Your task to perform on an android device: Go to CNN.com Image 0: 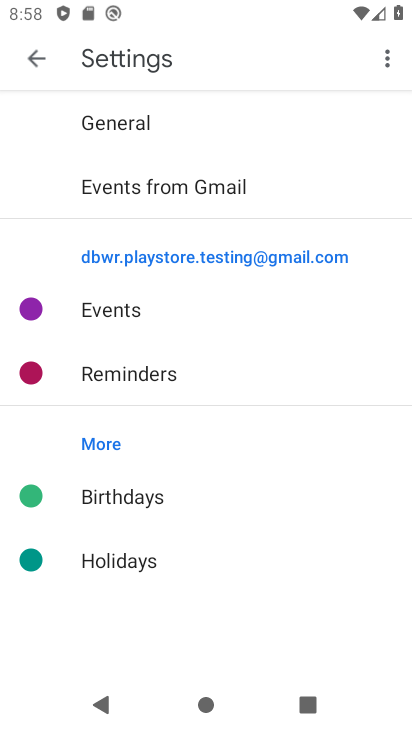
Step 0: press home button
Your task to perform on an android device: Go to CNN.com Image 1: 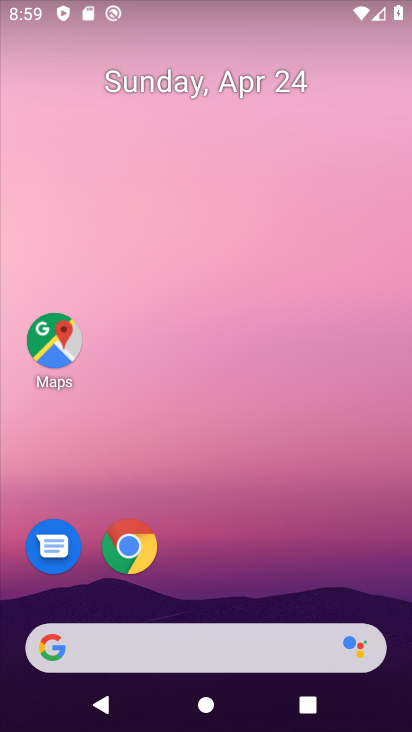
Step 1: drag from (223, 580) to (244, 220)
Your task to perform on an android device: Go to CNN.com Image 2: 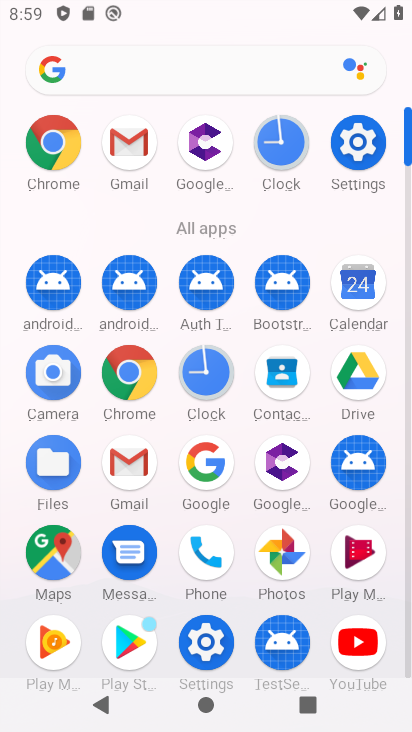
Step 2: click (112, 371)
Your task to perform on an android device: Go to CNN.com Image 3: 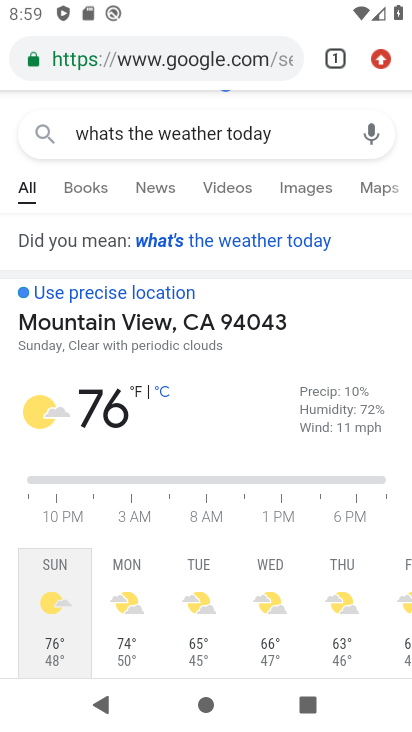
Step 3: click (380, 55)
Your task to perform on an android device: Go to CNN.com Image 4: 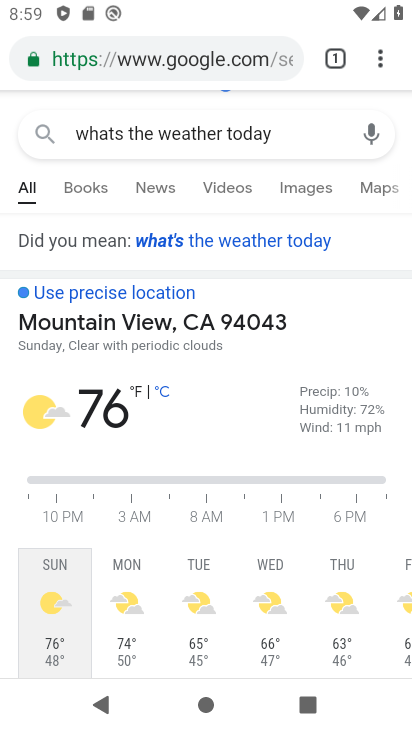
Step 4: click (365, 53)
Your task to perform on an android device: Go to CNN.com Image 5: 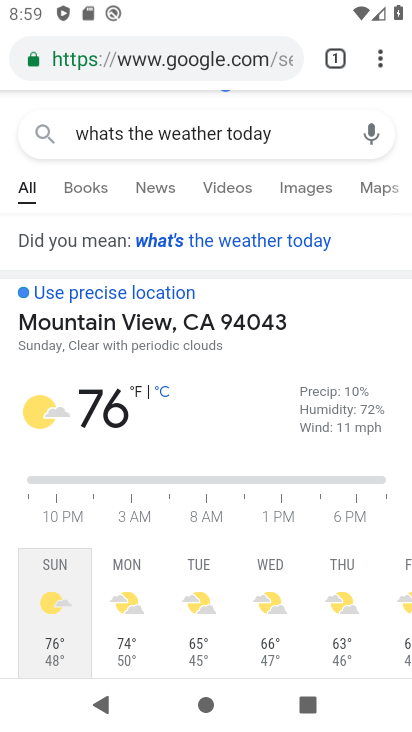
Step 5: click (375, 53)
Your task to perform on an android device: Go to CNN.com Image 6: 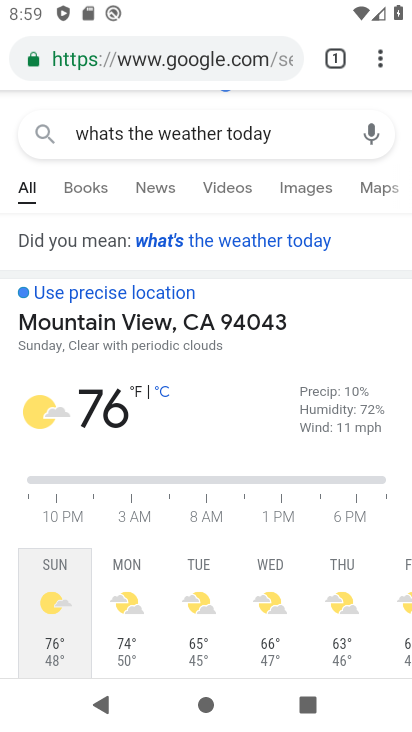
Step 6: click (368, 57)
Your task to perform on an android device: Go to CNN.com Image 7: 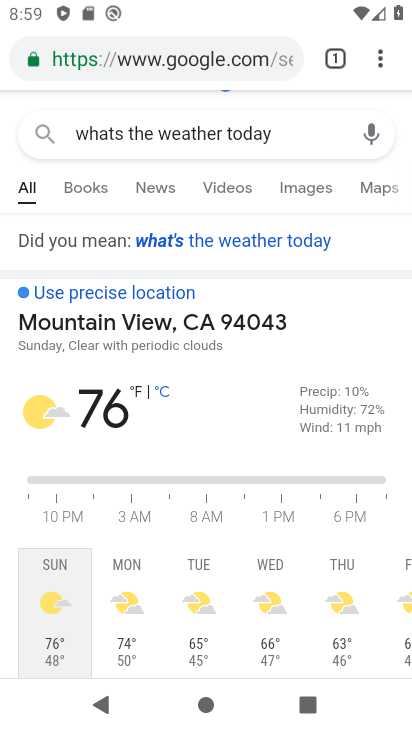
Step 7: click (368, 57)
Your task to perform on an android device: Go to CNN.com Image 8: 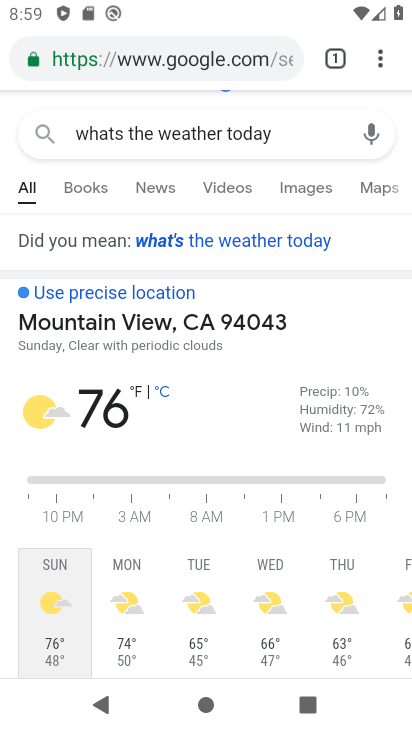
Step 8: click (363, 57)
Your task to perform on an android device: Go to CNN.com Image 9: 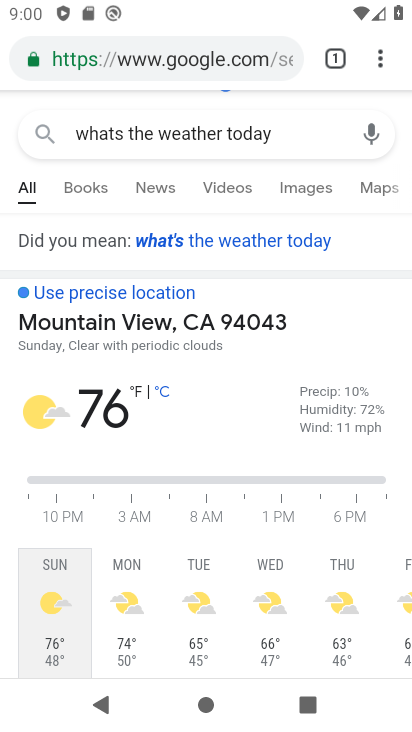
Step 9: click (383, 70)
Your task to perform on an android device: Go to CNN.com Image 10: 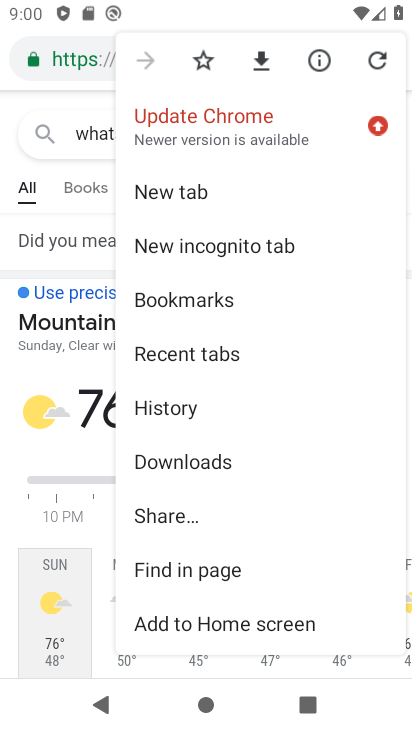
Step 10: click (207, 193)
Your task to perform on an android device: Go to CNN.com Image 11: 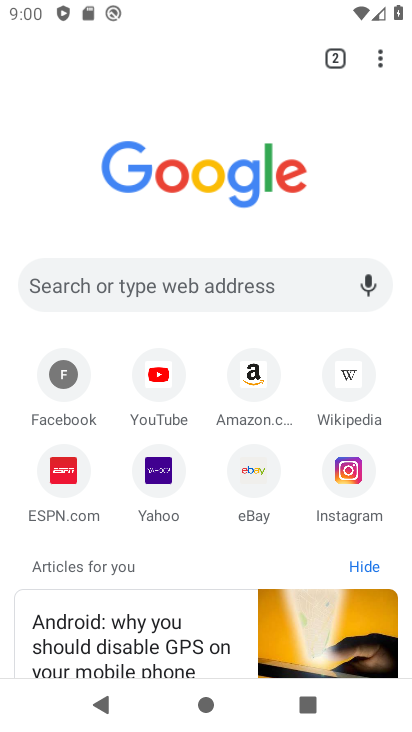
Step 11: click (207, 276)
Your task to perform on an android device: Go to CNN.com Image 12: 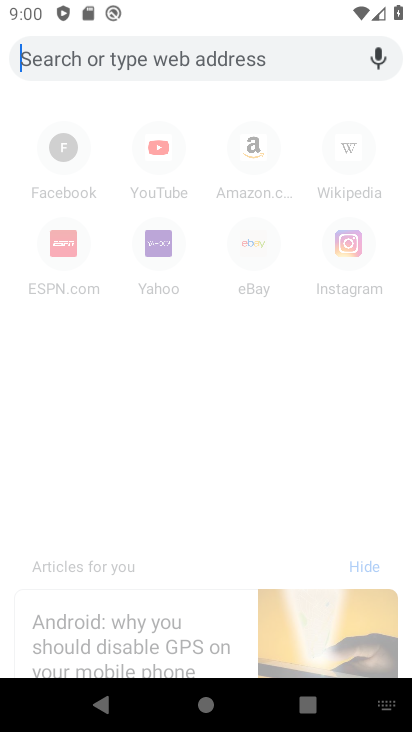
Step 12: type " CNN.com"
Your task to perform on an android device: Go to CNN.com Image 13: 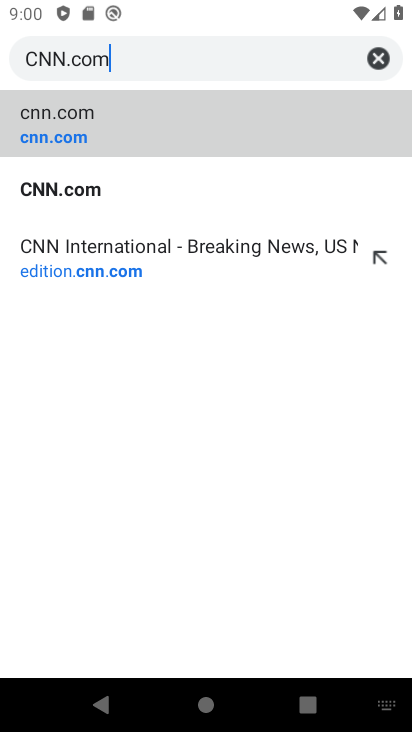
Step 13: click (132, 115)
Your task to perform on an android device: Go to CNN.com Image 14: 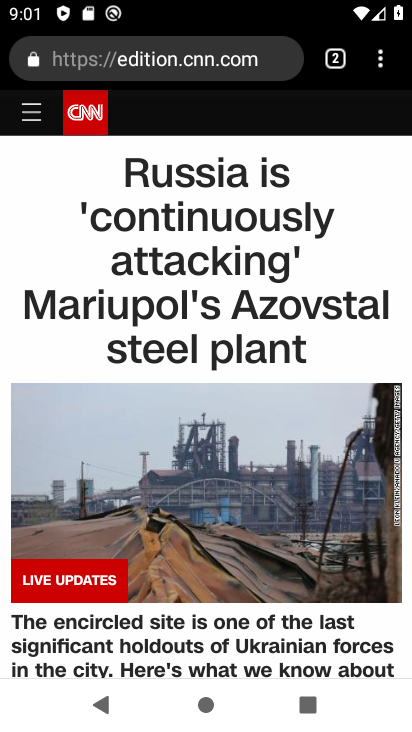
Step 14: task complete